Your task to perform on an android device: Open Reddit.com Image 0: 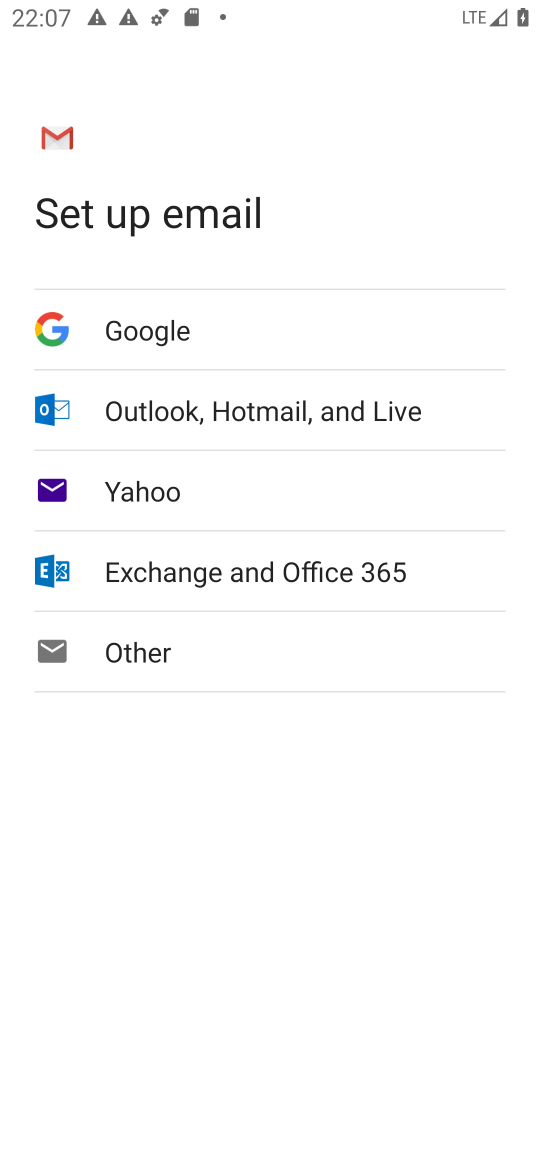
Step 0: press home button
Your task to perform on an android device: Open Reddit.com Image 1: 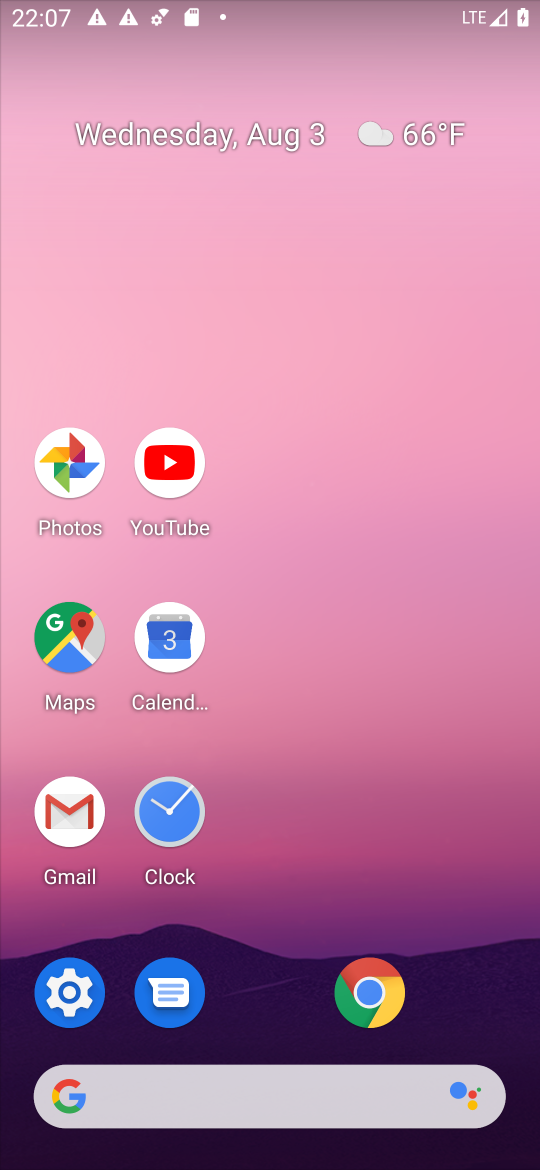
Step 1: click (380, 988)
Your task to perform on an android device: Open Reddit.com Image 2: 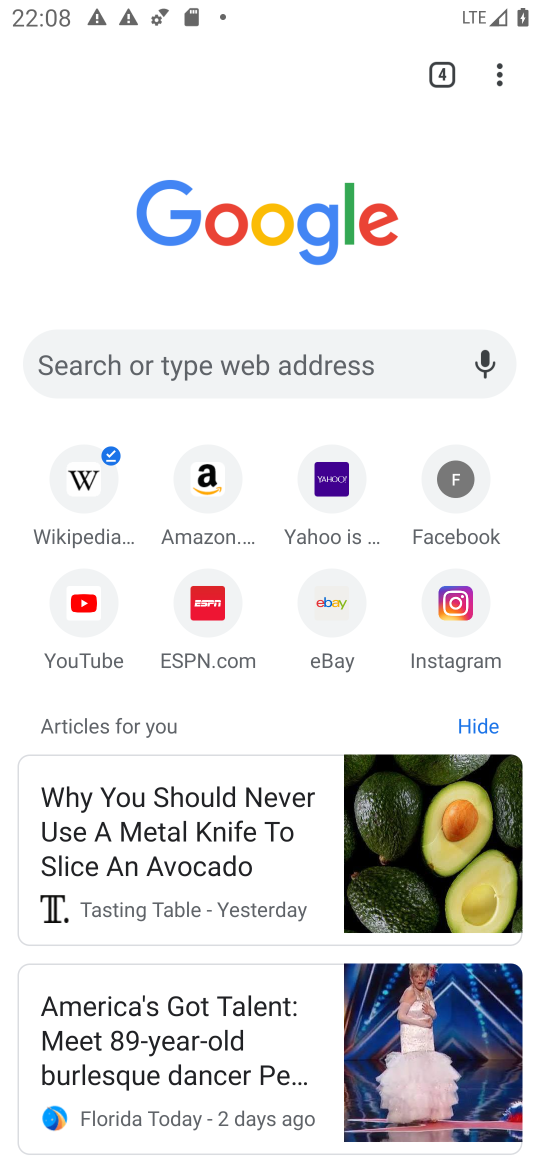
Step 2: click (183, 376)
Your task to perform on an android device: Open Reddit.com Image 3: 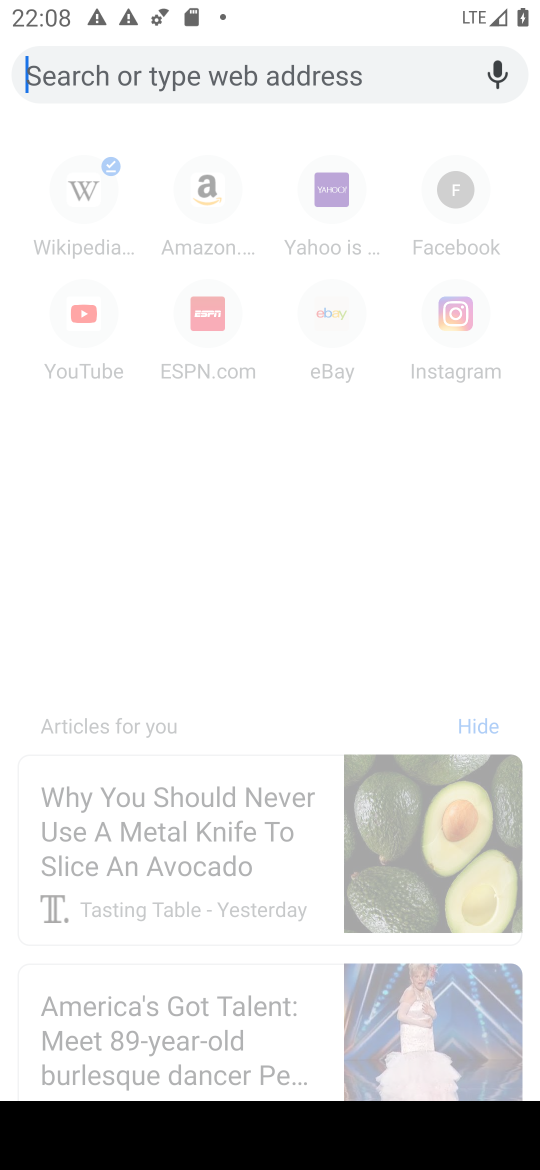
Step 3: type "reddit.com"
Your task to perform on an android device: Open Reddit.com Image 4: 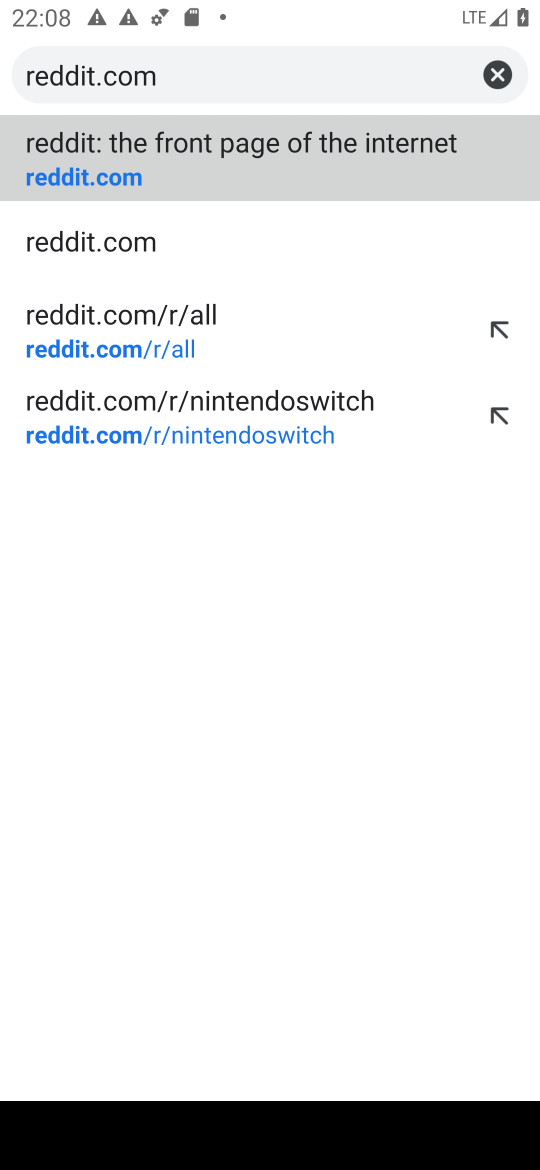
Step 4: click (97, 148)
Your task to perform on an android device: Open Reddit.com Image 5: 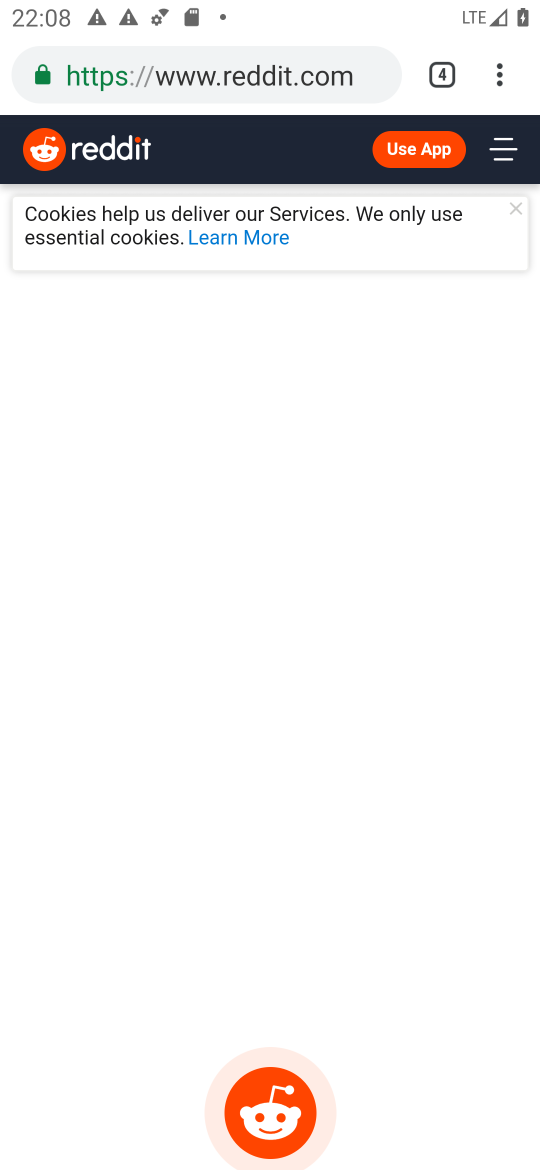
Step 5: task complete